Your task to perform on an android device: When is my next appointment? Image 0: 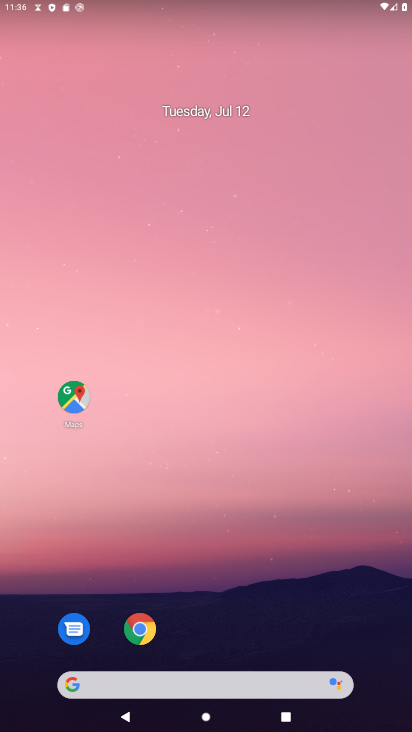
Step 0: drag from (377, 542) to (340, 0)
Your task to perform on an android device: When is my next appointment? Image 1: 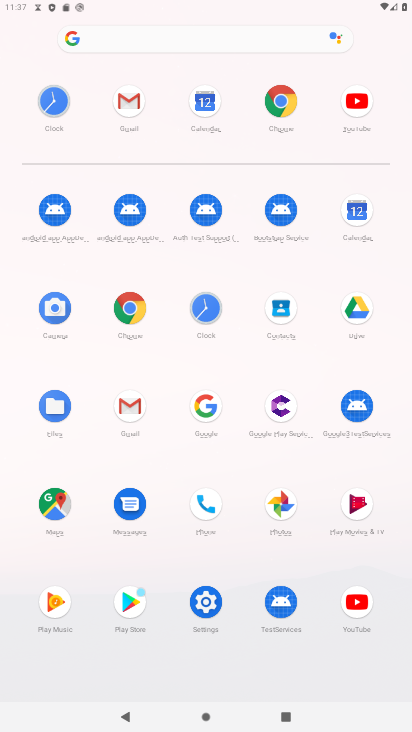
Step 1: click (355, 189)
Your task to perform on an android device: When is my next appointment? Image 2: 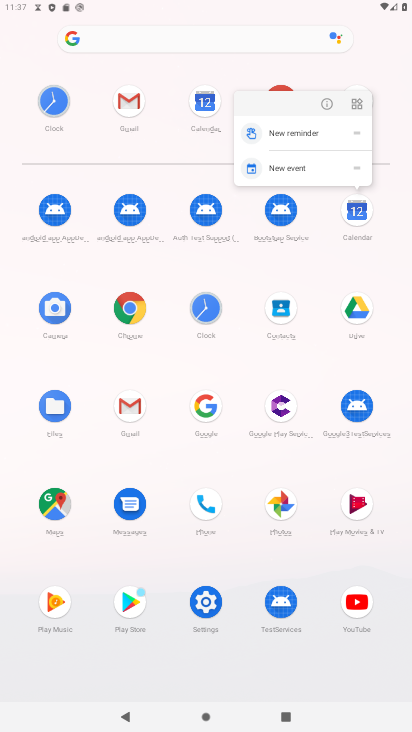
Step 2: click (364, 220)
Your task to perform on an android device: When is my next appointment? Image 3: 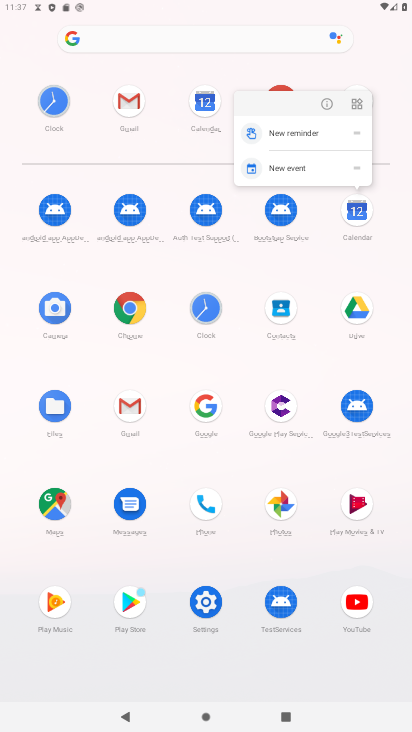
Step 3: click (351, 213)
Your task to perform on an android device: When is my next appointment? Image 4: 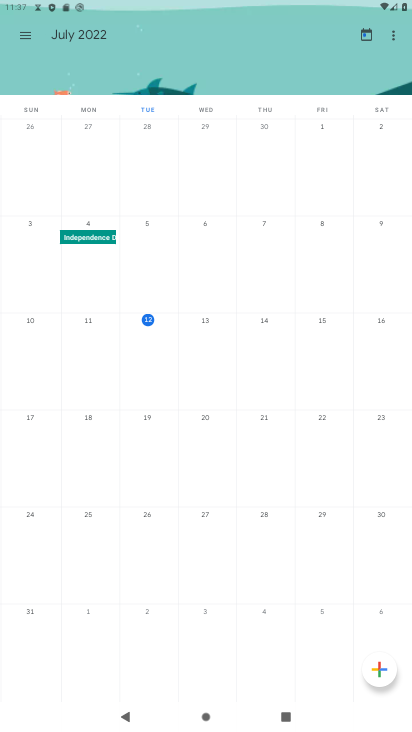
Step 4: task complete